Your task to perform on an android device: Open ESPN.com Image 0: 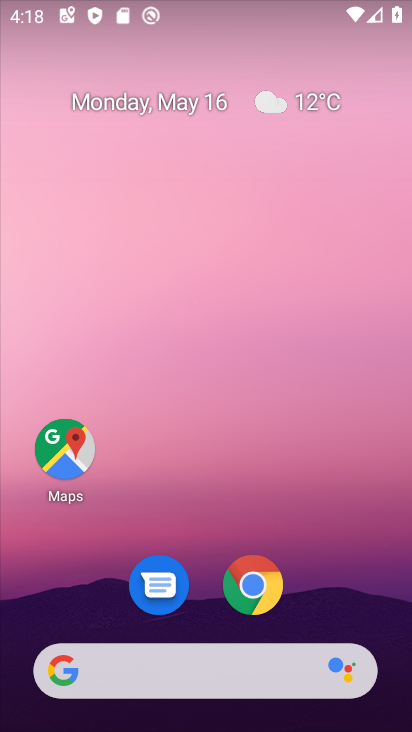
Step 0: click (242, 668)
Your task to perform on an android device: Open ESPN.com Image 1: 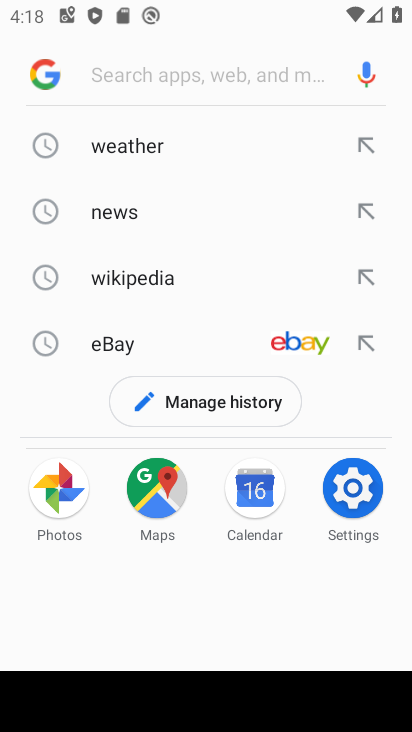
Step 1: type "espn.com"
Your task to perform on an android device: Open ESPN.com Image 2: 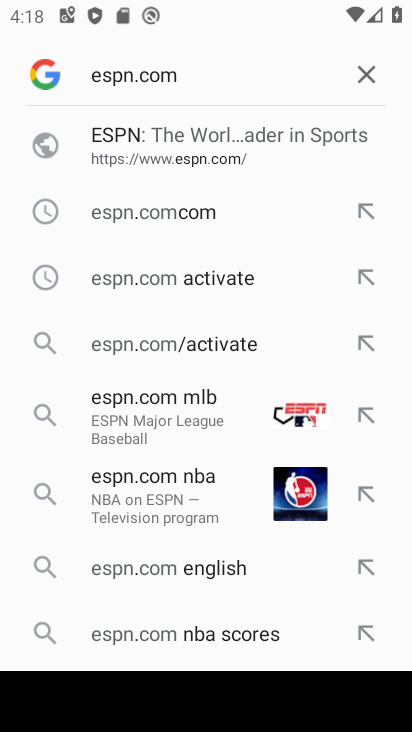
Step 2: click (102, 140)
Your task to perform on an android device: Open ESPN.com Image 3: 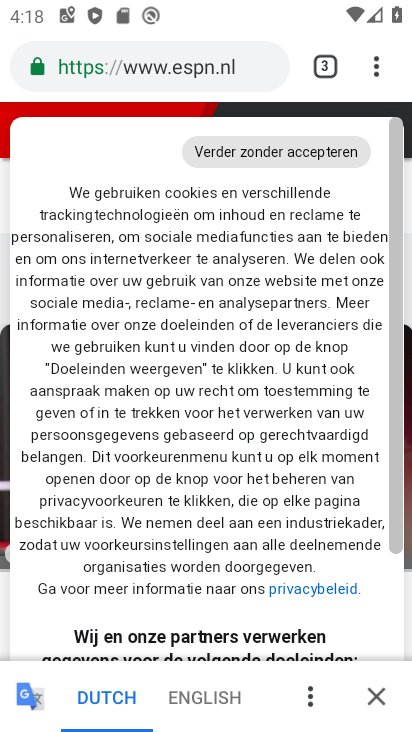
Step 3: task complete